Your task to perform on an android device: turn on javascript in the chrome app Image 0: 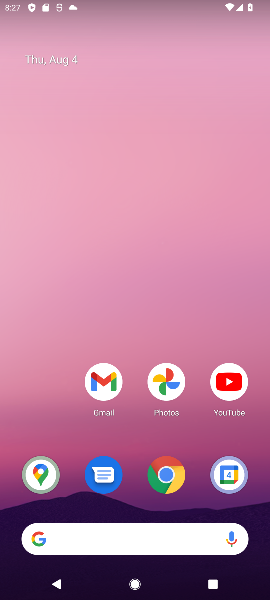
Step 0: click (147, 176)
Your task to perform on an android device: turn on javascript in the chrome app Image 1: 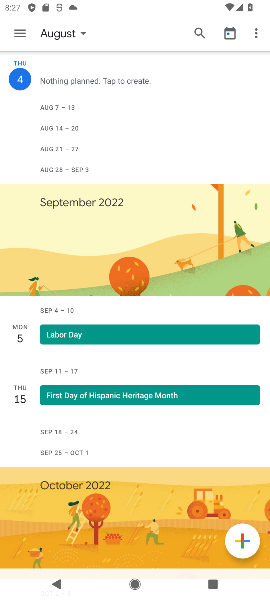
Step 1: drag from (151, 475) to (163, 248)
Your task to perform on an android device: turn on javascript in the chrome app Image 2: 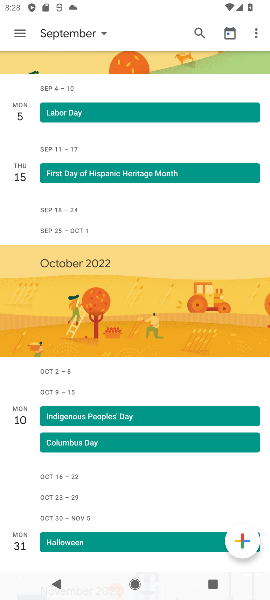
Step 2: click (102, 29)
Your task to perform on an android device: turn on javascript in the chrome app Image 3: 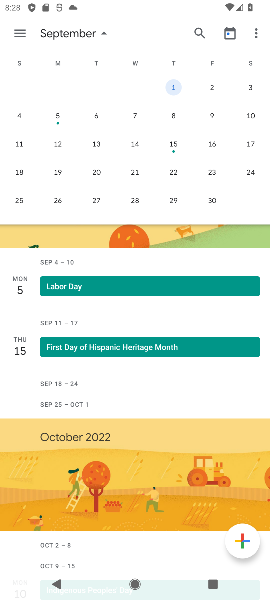
Step 3: click (94, 36)
Your task to perform on an android device: turn on javascript in the chrome app Image 4: 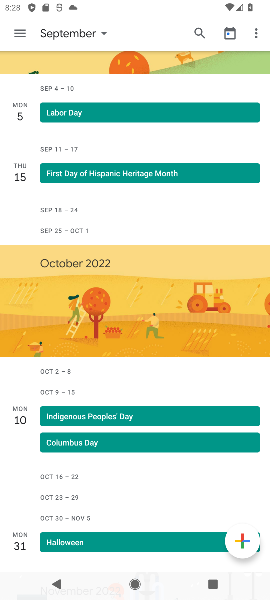
Step 4: press home button
Your task to perform on an android device: turn on javascript in the chrome app Image 5: 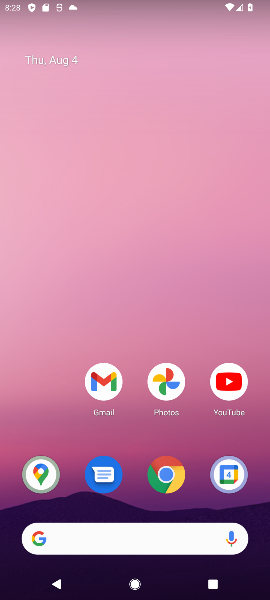
Step 5: drag from (119, 516) to (116, 168)
Your task to perform on an android device: turn on javascript in the chrome app Image 6: 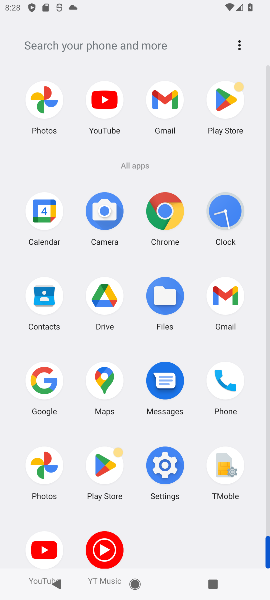
Step 6: drag from (127, 493) to (148, 184)
Your task to perform on an android device: turn on javascript in the chrome app Image 7: 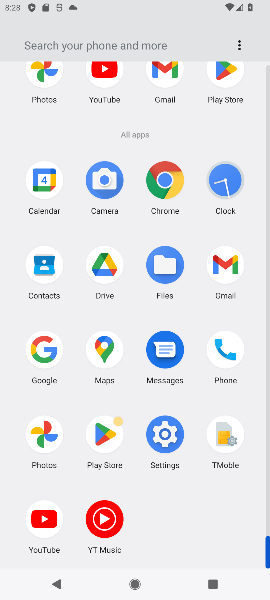
Step 7: click (161, 175)
Your task to perform on an android device: turn on javascript in the chrome app Image 8: 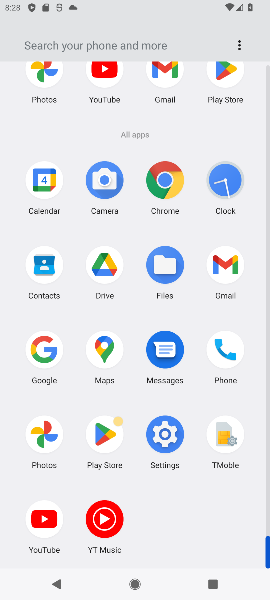
Step 8: click (161, 175)
Your task to perform on an android device: turn on javascript in the chrome app Image 9: 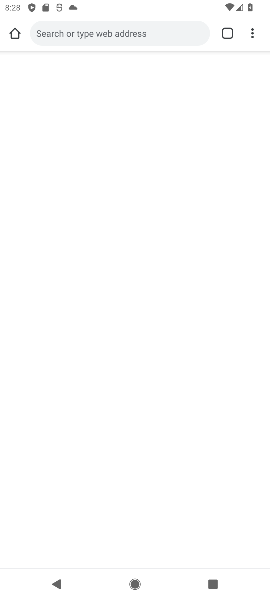
Step 9: drag from (131, 454) to (139, 179)
Your task to perform on an android device: turn on javascript in the chrome app Image 10: 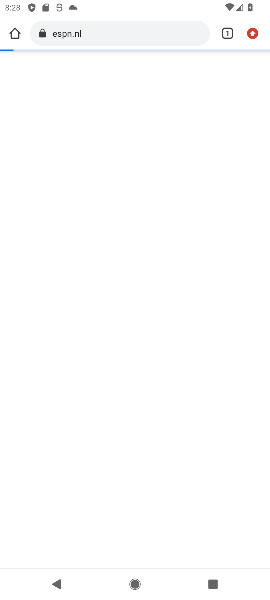
Step 10: drag from (149, 111) to (155, 370)
Your task to perform on an android device: turn on javascript in the chrome app Image 11: 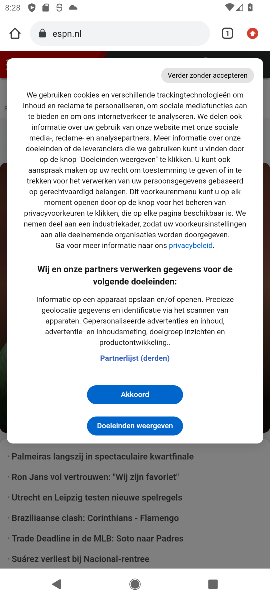
Step 11: drag from (248, 31) to (136, 453)
Your task to perform on an android device: turn on javascript in the chrome app Image 12: 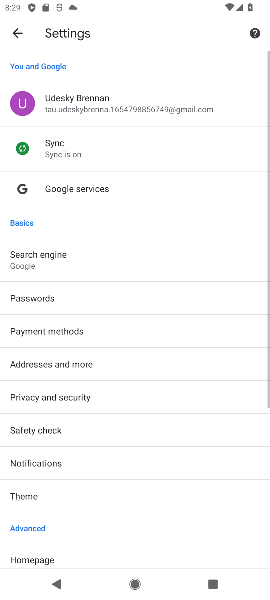
Step 12: drag from (67, 483) to (112, 212)
Your task to perform on an android device: turn on javascript in the chrome app Image 13: 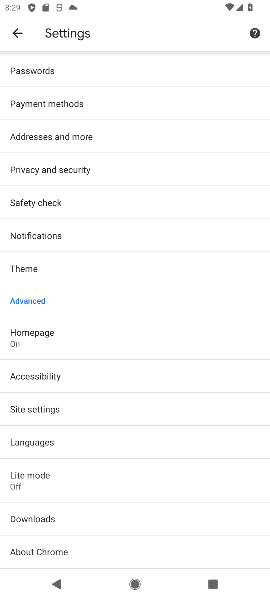
Step 13: click (69, 408)
Your task to perform on an android device: turn on javascript in the chrome app Image 14: 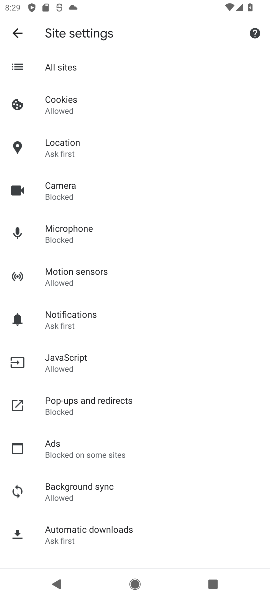
Step 14: click (74, 372)
Your task to perform on an android device: turn on javascript in the chrome app Image 15: 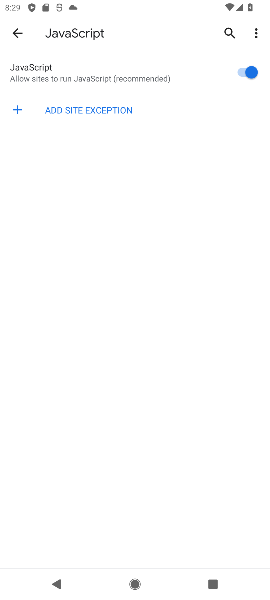
Step 15: task complete